Your task to perform on an android device: Show the shopping cart on newegg.com. Add usb-a to the cart on newegg.com Image 0: 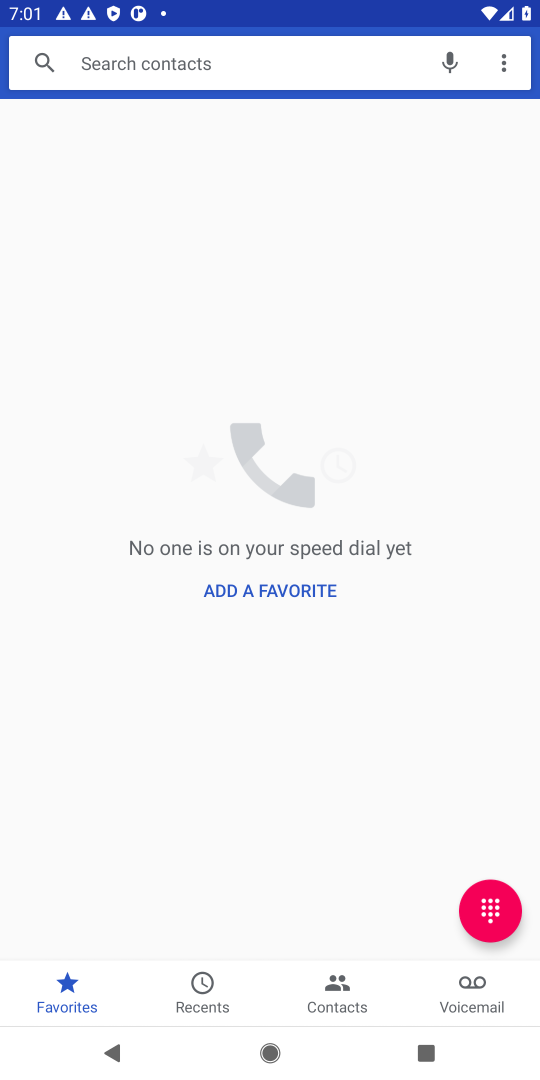
Step 0: press home button
Your task to perform on an android device: Show the shopping cart on newegg.com. Add usb-a to the cart on newegg.com Image 1: 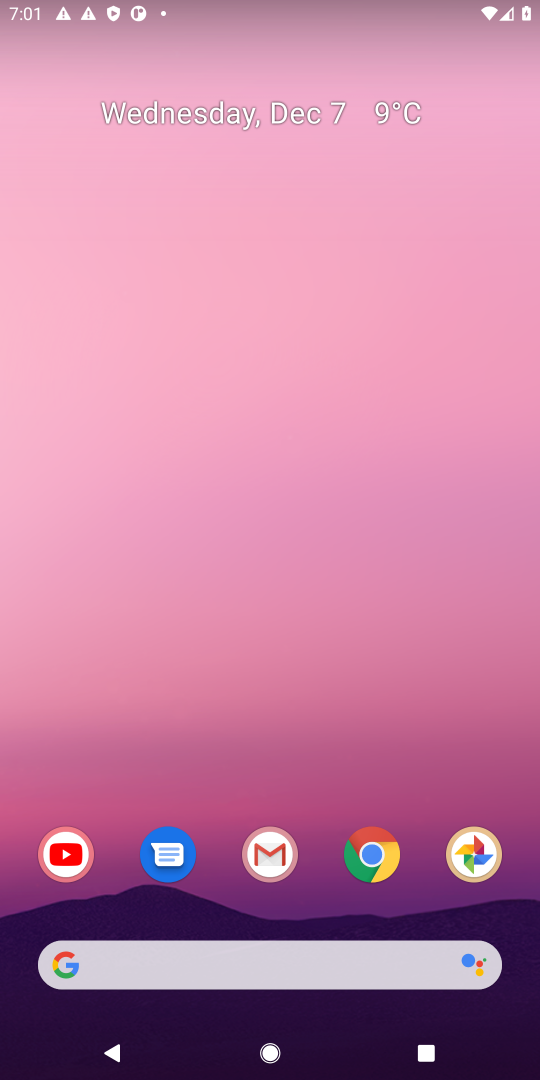
Step 1: click (250, 950)
Your task to perform on an android device: Show the shopping cart on newegg.com. Add usb-a to the cart on newegg.com Image 2: 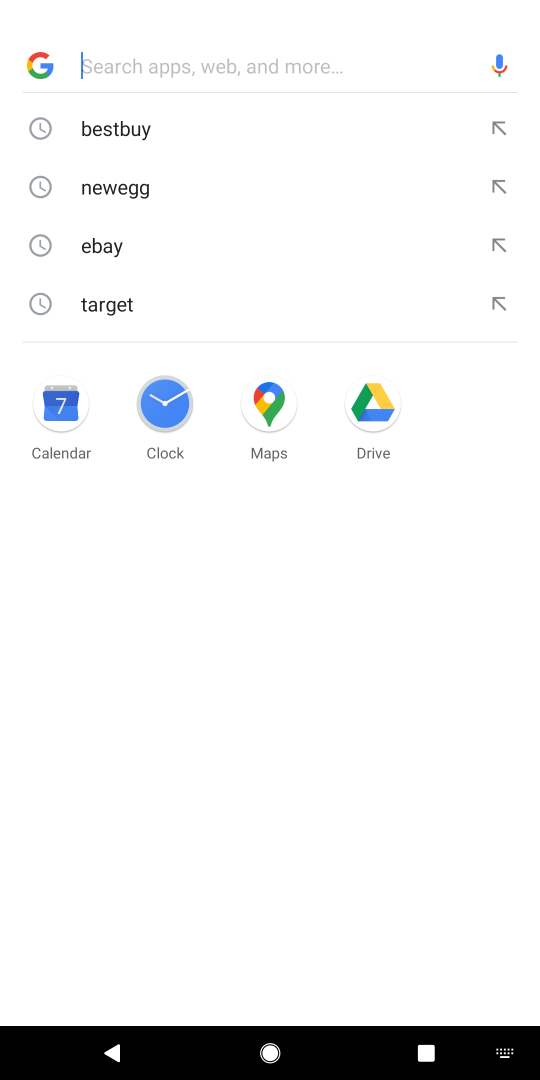
Step 2: type "newegg"
Your task to perform on an android device: Show the shopping cart on newegg.com. Add usb-a to the cart on newegg.com Image 3: 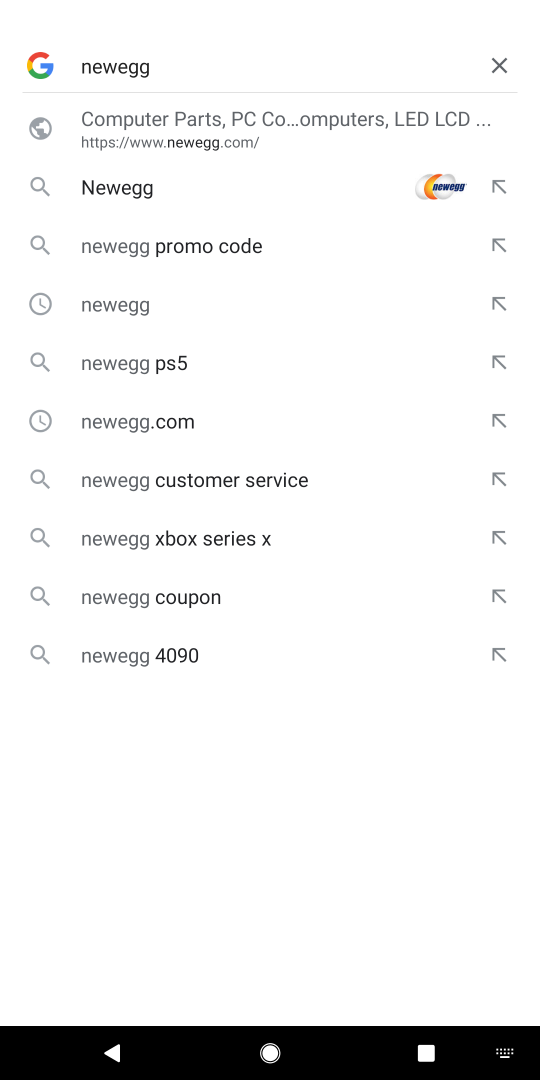
Step 3: click (162, 125)
Your task to perform on an android device: Show the shopping cart on newegg.com. Add usb-a to the cart on newegg.com Image 4: 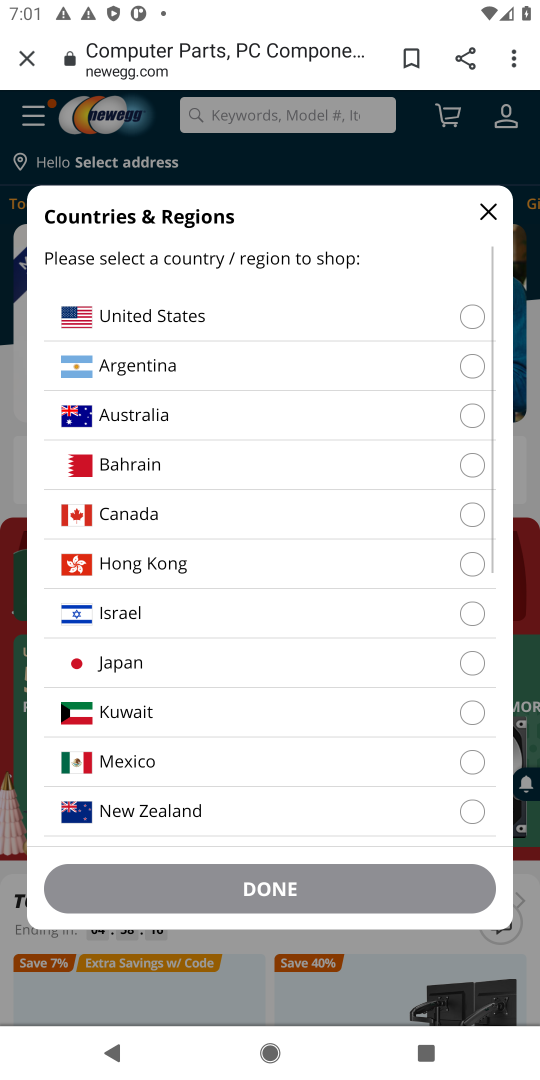
Step 4: click (321, 312)
Your task to perform on an android device: Show the shopping cart on newegg.com. Add usb-a to the cart on newegg.com Image 5: 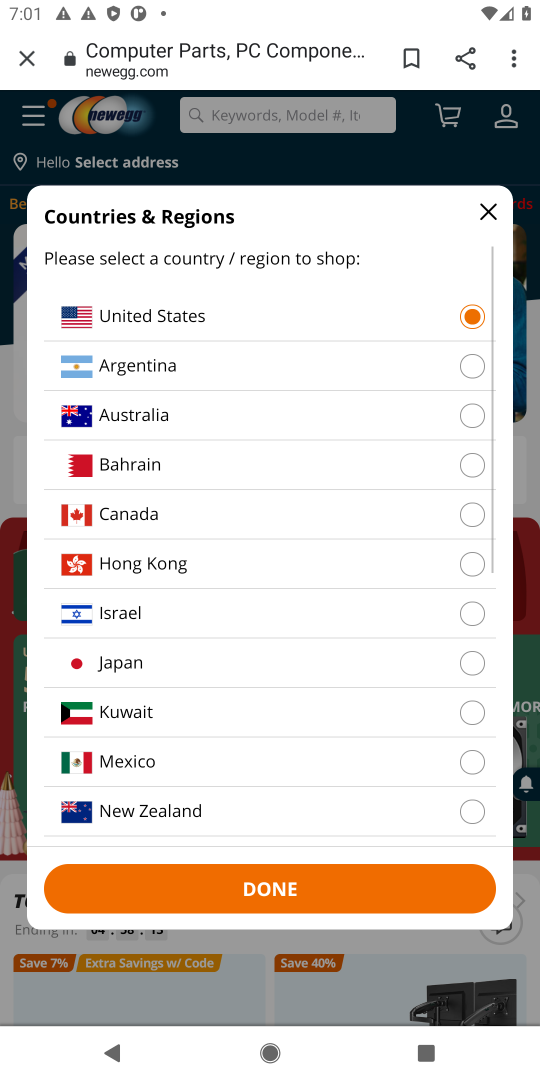
Step 5: click (317, 888)
Your task to perform on an android device: Show the shopping cart on newegg.com. Add usb-a to the cart on newegg.com Image 6: 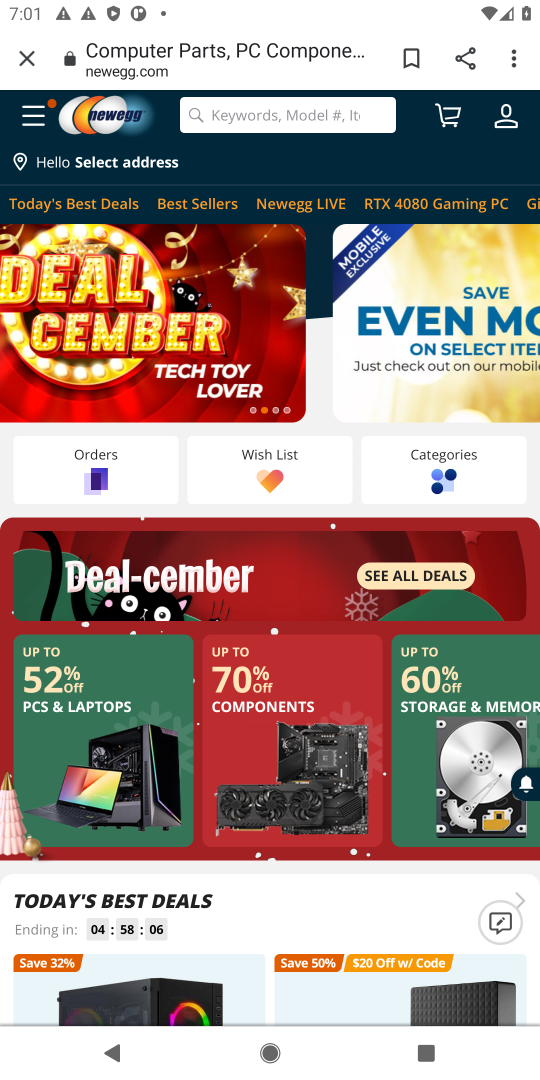
Step 6: click (267, 101)
Your task to perform on an android device: Show the shopping cart on newegg.com. Add usb-a to the cart on newegg.com Image 7: 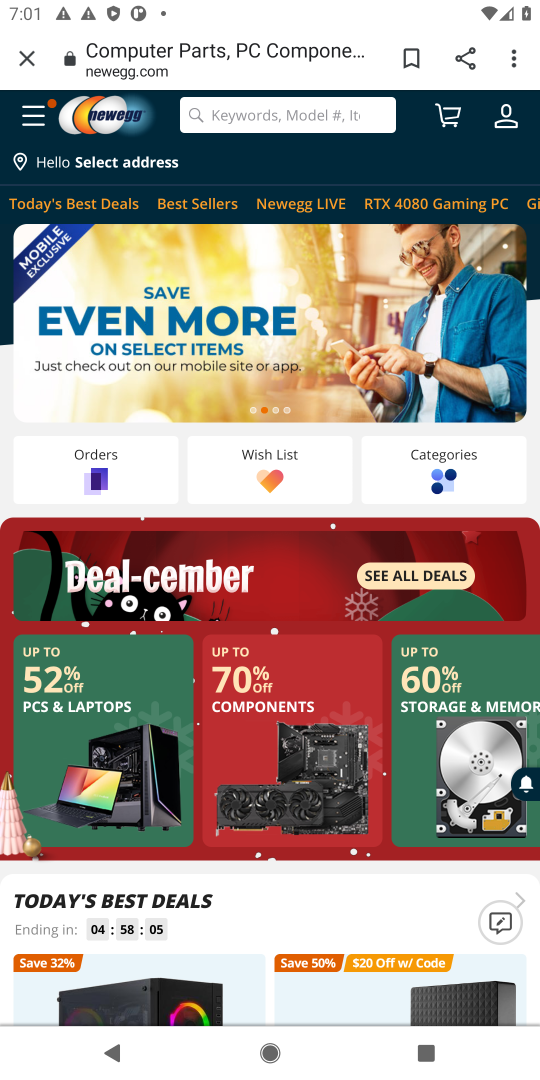
Step 7: click (267, 101)
Your task to perform on an android device: Show the shopping cart on newegg.com. Add usb-a to the cart on newegg.com Image 8: 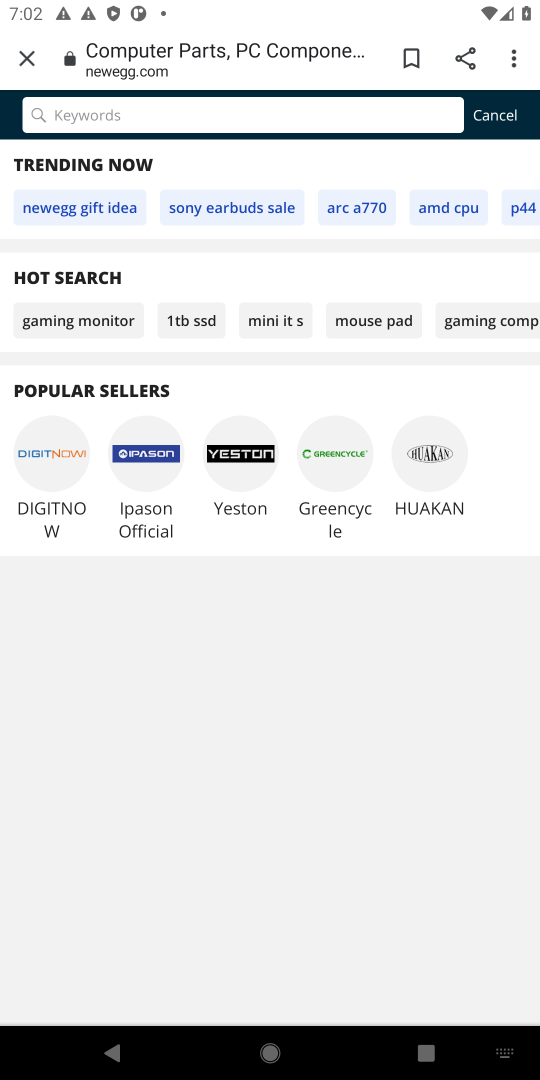
Step 8: type "usb-a"
Your task to perform on an android device: Show the shopping cart on newegg.com. Add usb-a to the cart on newegg.com Image 9: 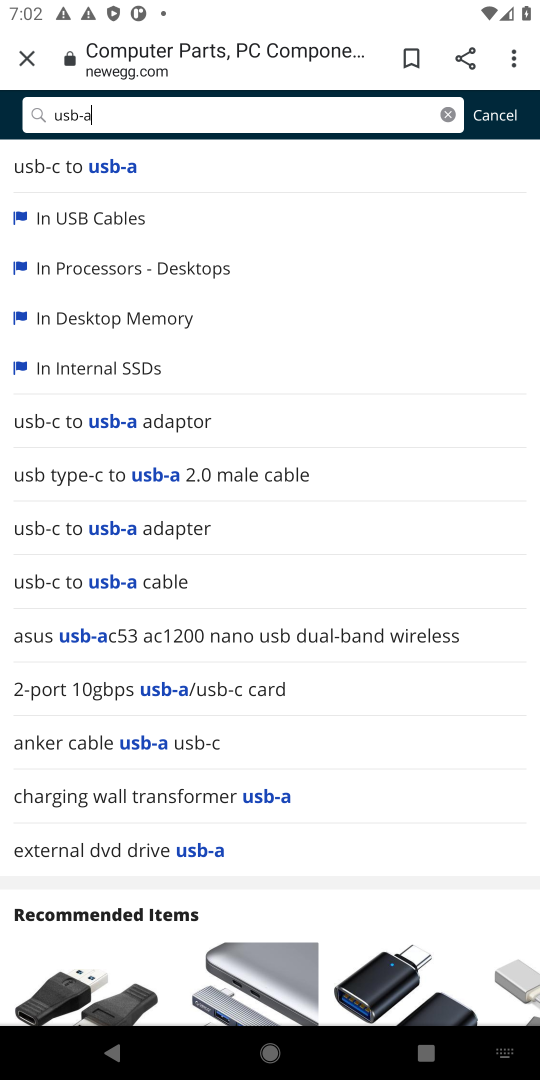
Step 9: click (113, 210)
Your task to perform on an android device: Show the shopping cart on newegg.com. Add usb-a to the cart on newegg.com Image 10: 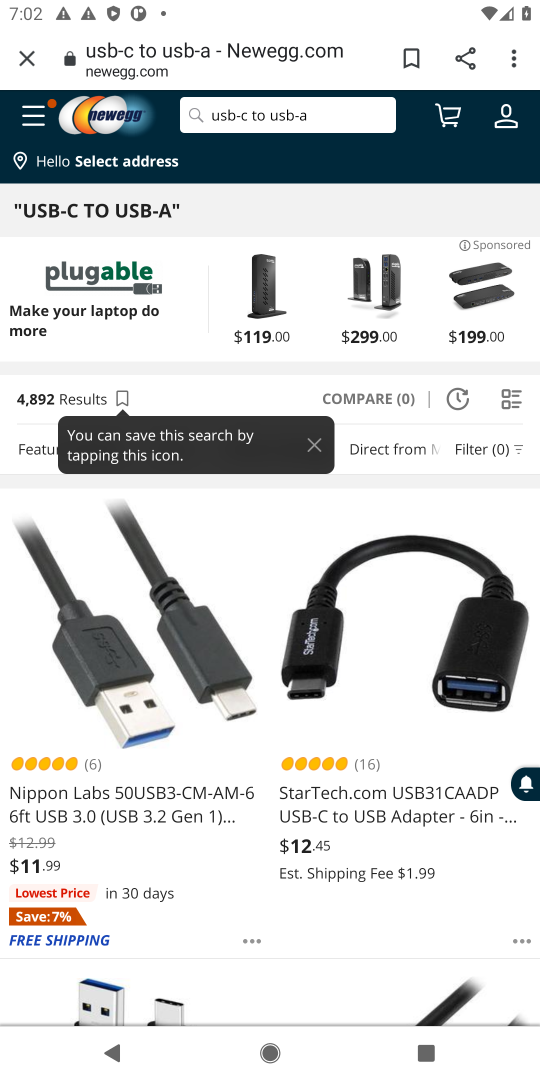
Step 10: click (136, 851)
Your task to perform on an android device: Show the shopping cart on newegg.com. Add usb-a to the cart on newegg.com Image 11: 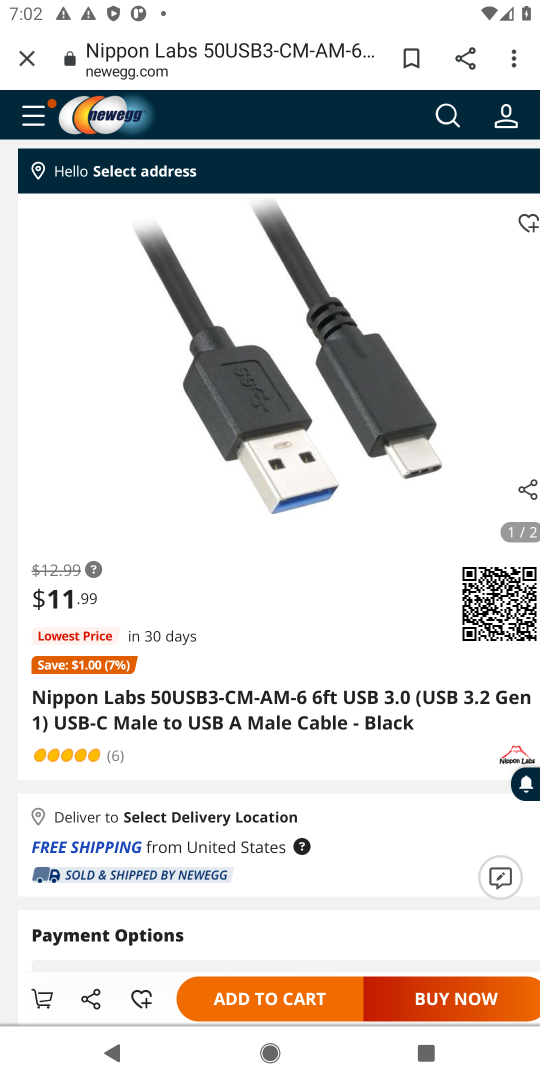
Step 11: click (249, 985)
Your task to perform on an android device: Show the shopping cart on newegg.com. Add usb-a to the cart on newegg.com Image 12: 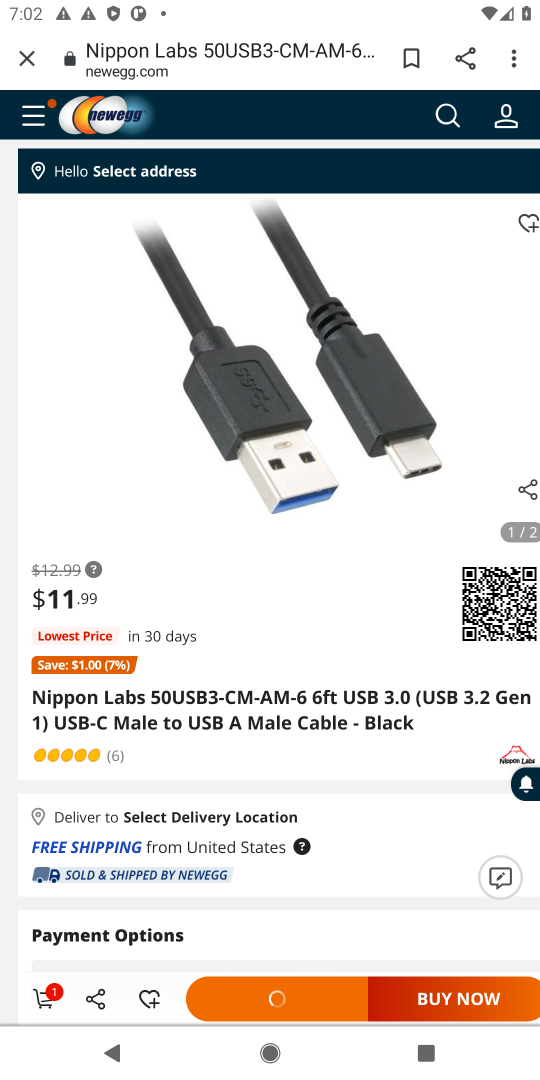
Step 12: task complete